Your task to perform on an android device: allow cookies in the chrome app Image 0: 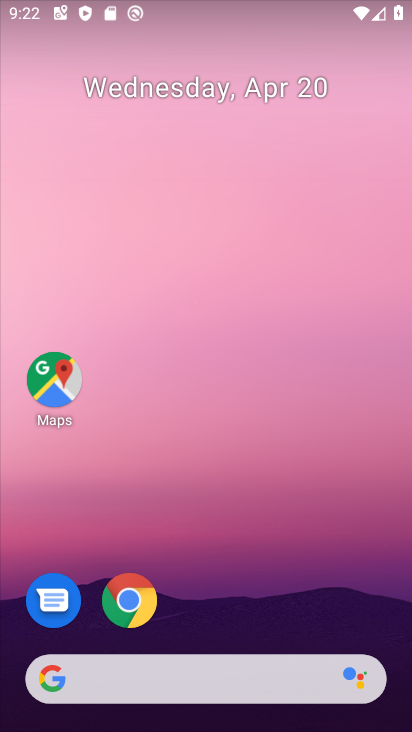
Step 0: click (124, 595)
Your task to perform on an android device: allow cookies in the chrome app Image 1: 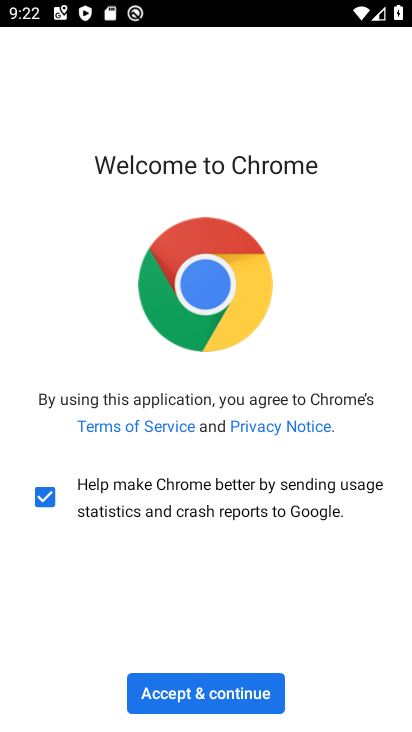
Step 1: click (190, 683)
Your task to perform on an android device: allow cookies in the chrome app Image 2: 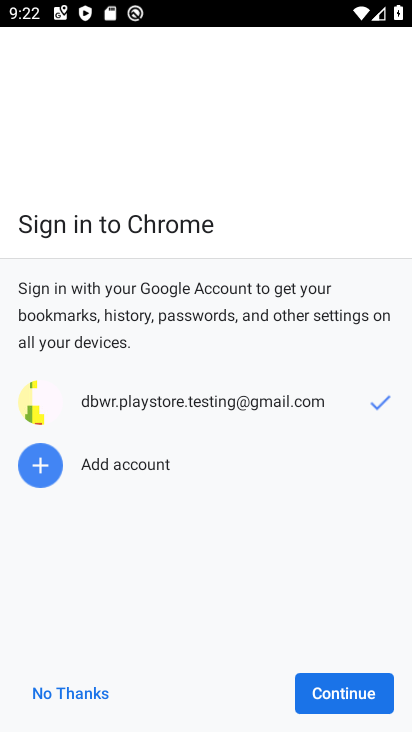
Step 2: click (342, 693)
Your task to perform on an android device: allow cookies in the chrome app Image 3: 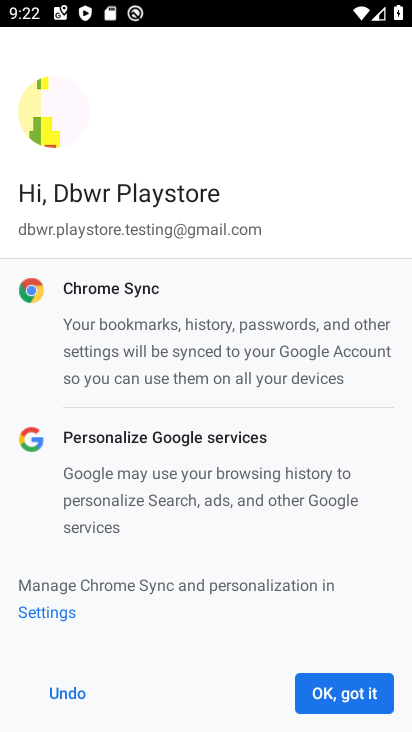
Step 3: click (342, 692)
Your task to perform on an android device: allow cookies in the chrome app Image 4: 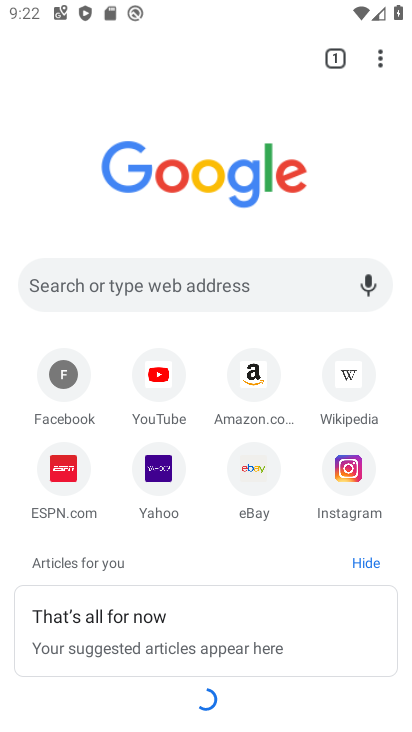
Step 4: drag from (381, 70) to (180, 500)
Your task to perform on an android device: allow cookies in the chrome app Image 5: 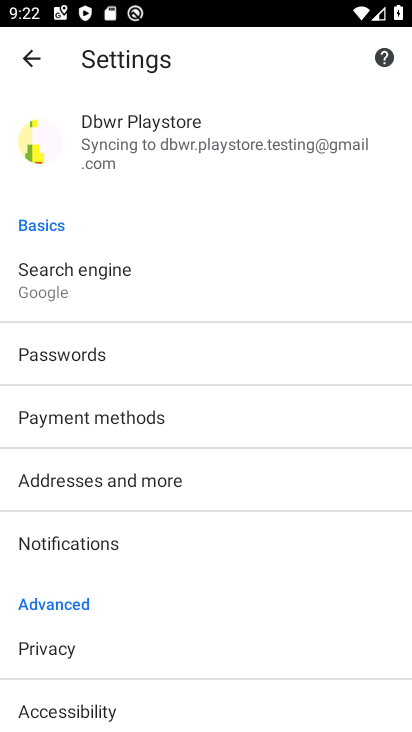
Step 5: drag from (131, 634) to (96, 204)
Your task to perform on an android device: allow cookies in the chrome app Image 6: 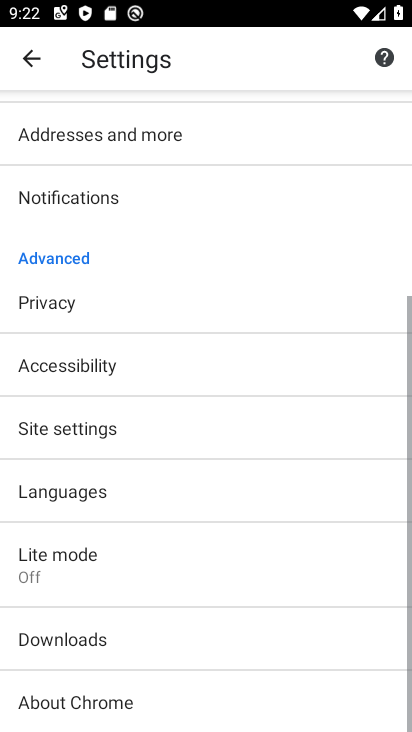
Step 6: click (70, 429)
Your task to perform on an android device: allow cookies in the chrome app Image 7: 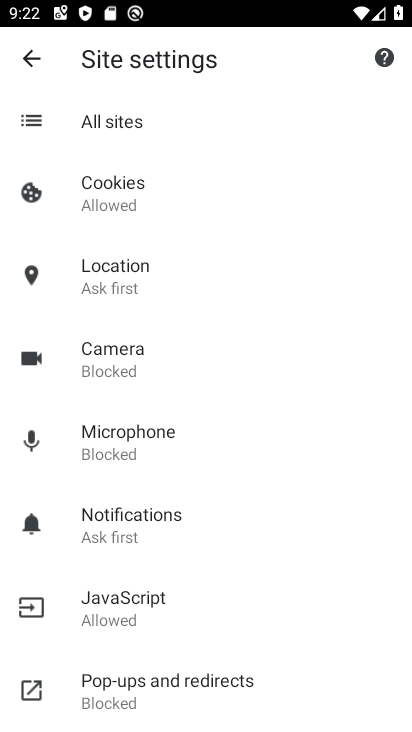
Step 7: click (123, 193)
Your task to perform on an android device: allow cookies in the chrome app Image 8: 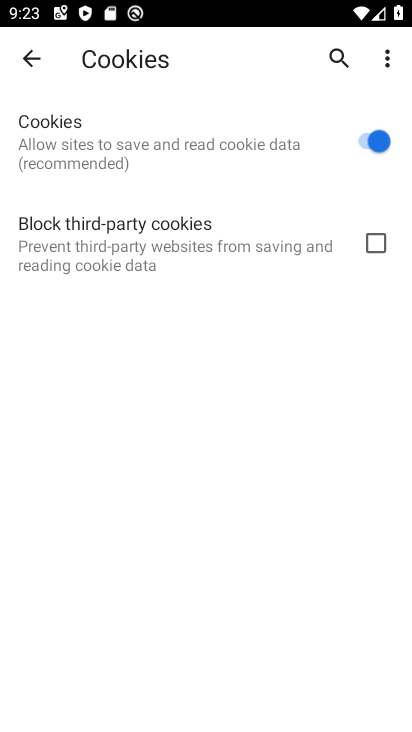
Step 8: task complete